Your task to perform on an android device: open chrome privacy settings Image 0: 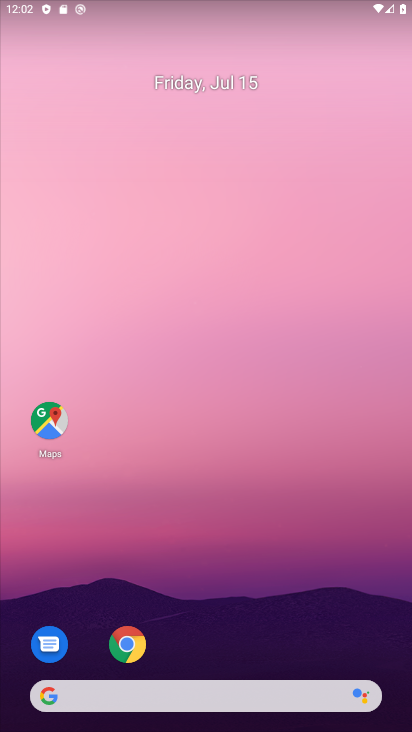
Step 0: drag from (378, 634) to (210, 58)
Your task to perform on an android device: open chrome privacy settings Image 1: 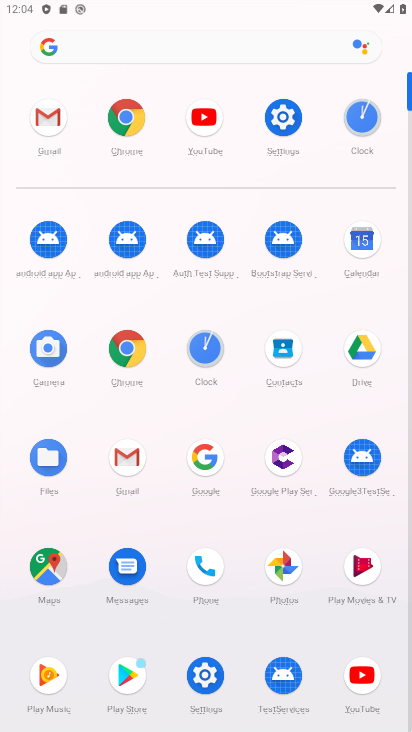
Step 1: click (119, 342)
Your task to perform on an android device: open chrome privacy settings Image 2: 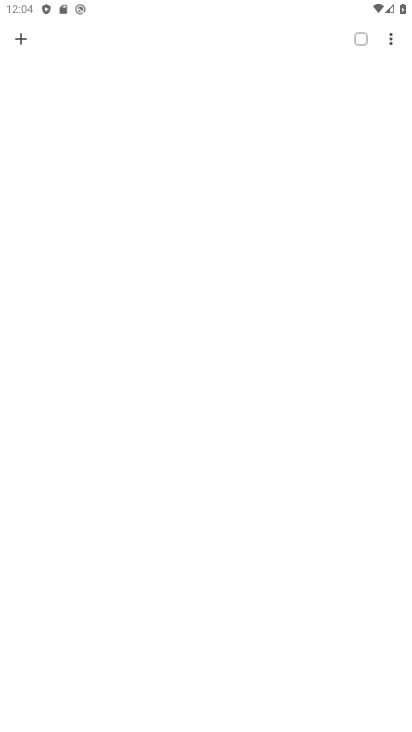
Step 2: click (395, 37)
Your task to perform on an android device: open chrome privacy settings Image 3: 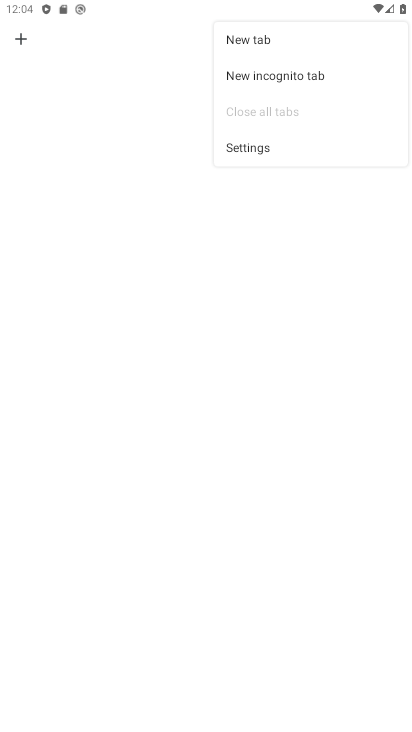
Step 3: click (289, 152)
Your task to perform on an android device: open chrome privacy settings Image 4: 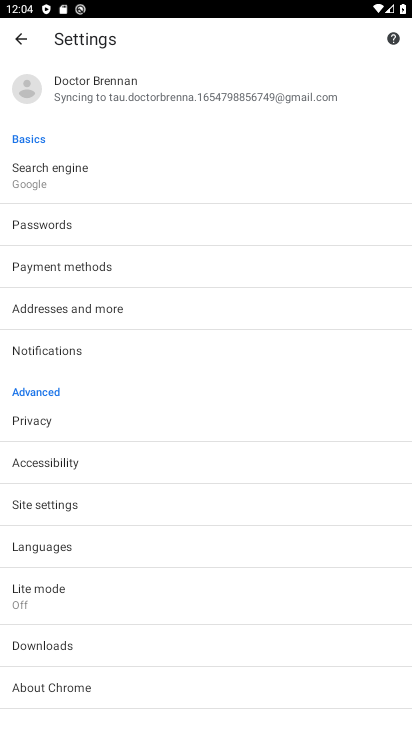
Step 4: click (78, 430)
Your task to perform on an android device: open chrome privacy settings Image 5: 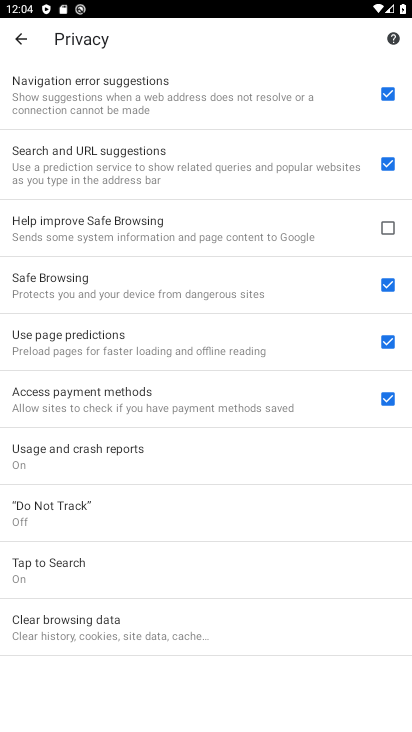
Step 5: task complete